Your task to perform on an android device: Show me recent news Image 0: 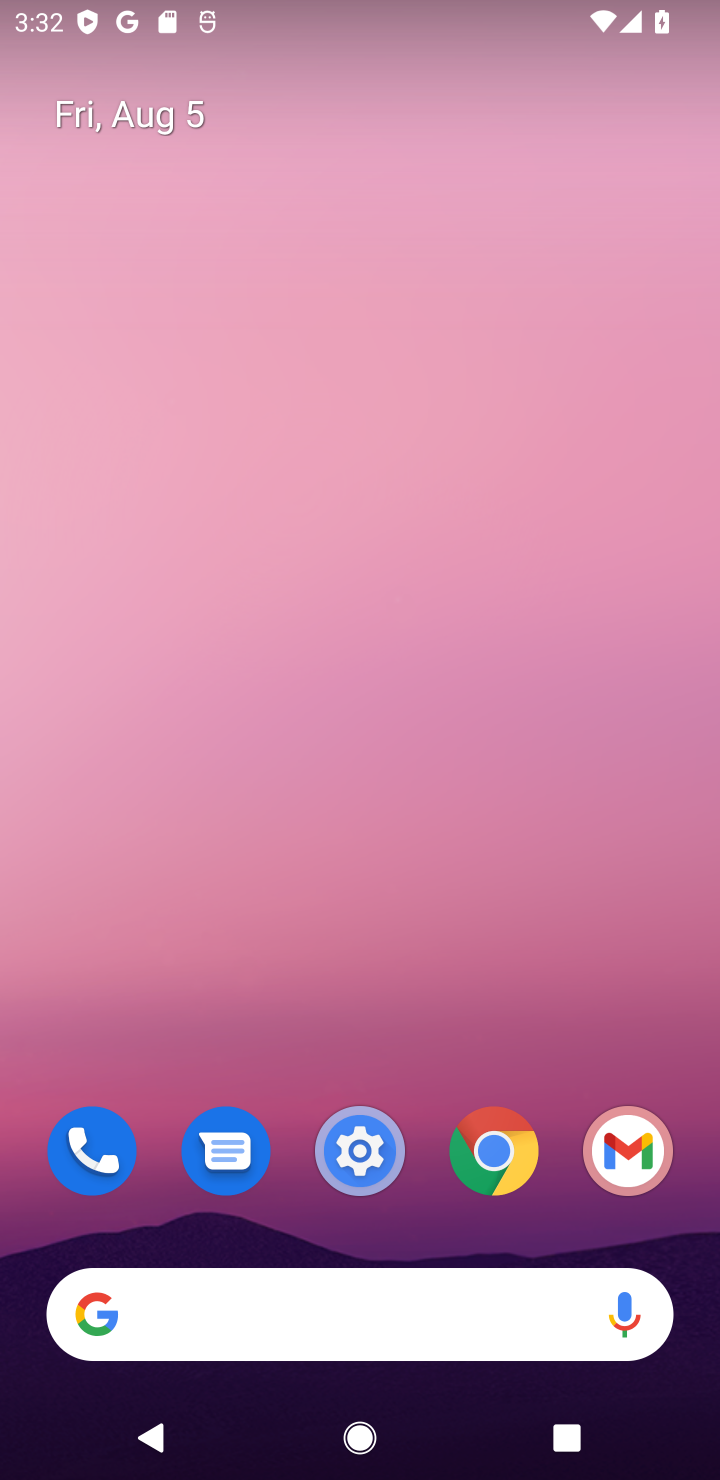
Step 0: click (404, 1317)
Your task to perform on an android device: Show me recent news Image 1: 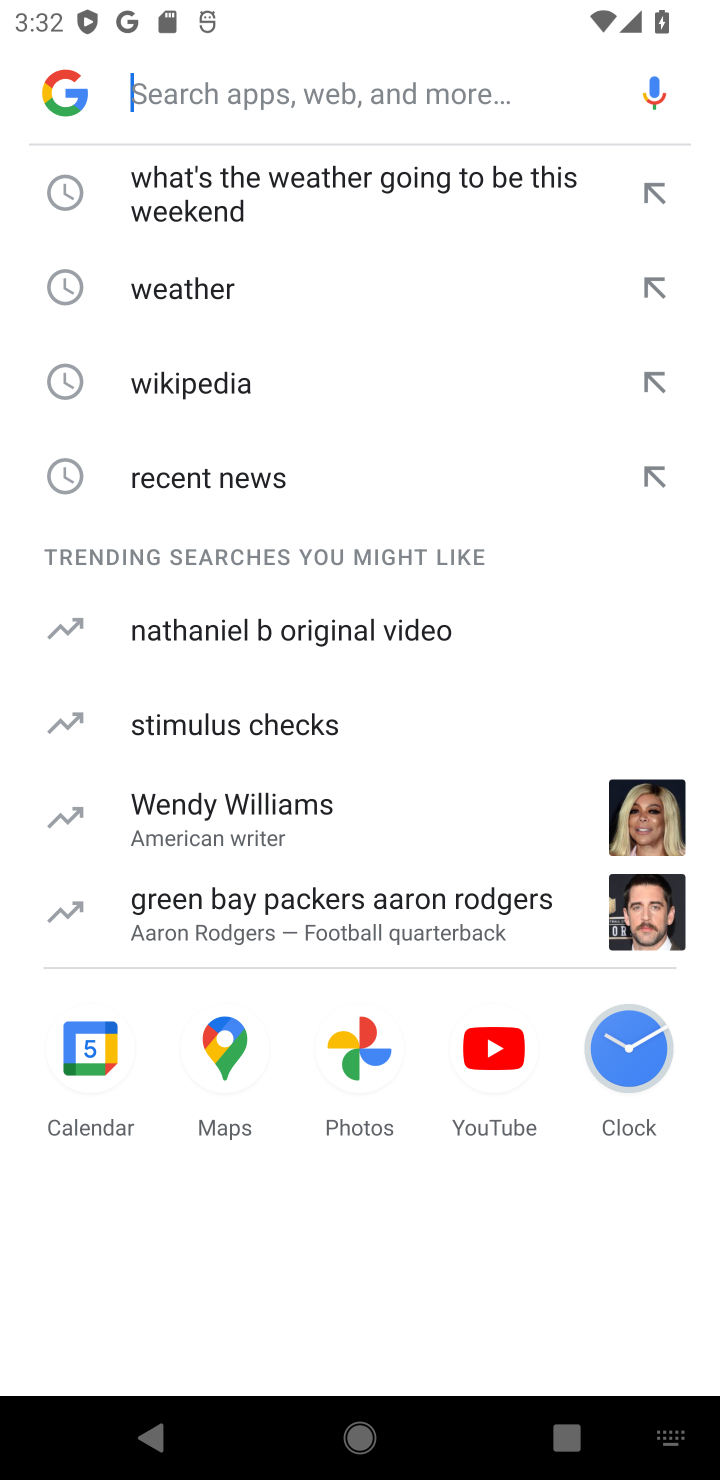
Step 1: type "recent news"
Your task to perform on an android device: Show me recent news Image 2: 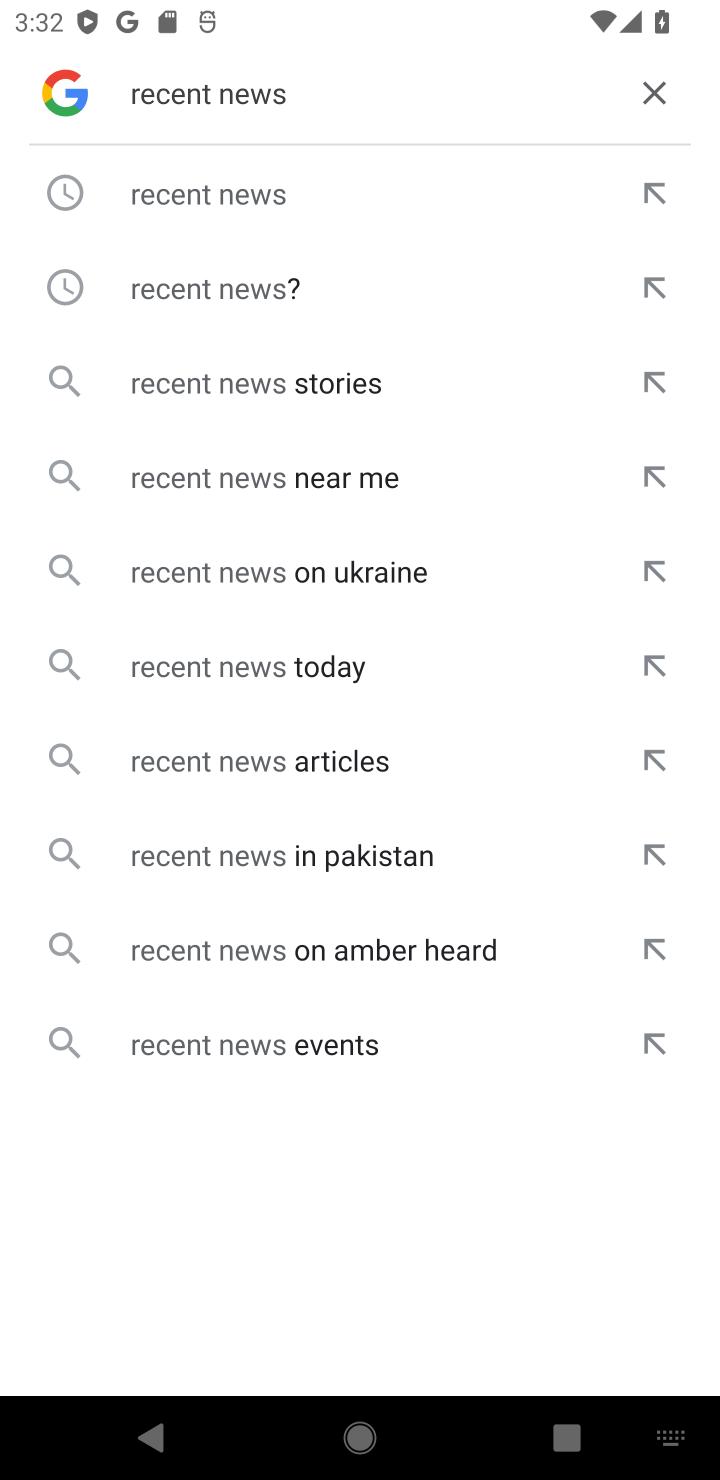
Step 2: click (321, 184)
Your task to perform on an android device: Show me recent news Image 3: 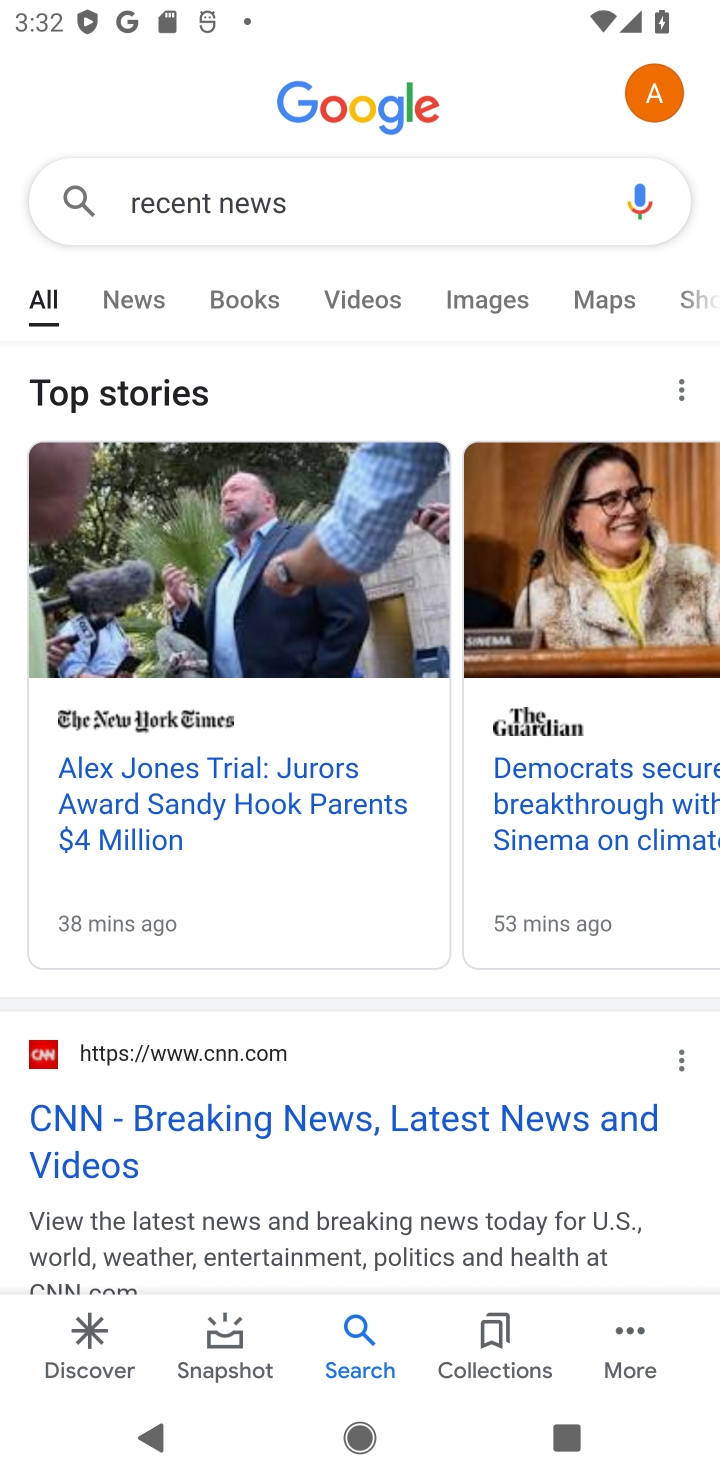
Step 3: click (149, 295)
Your task to perform on an android device: Show me recent news Image 4: 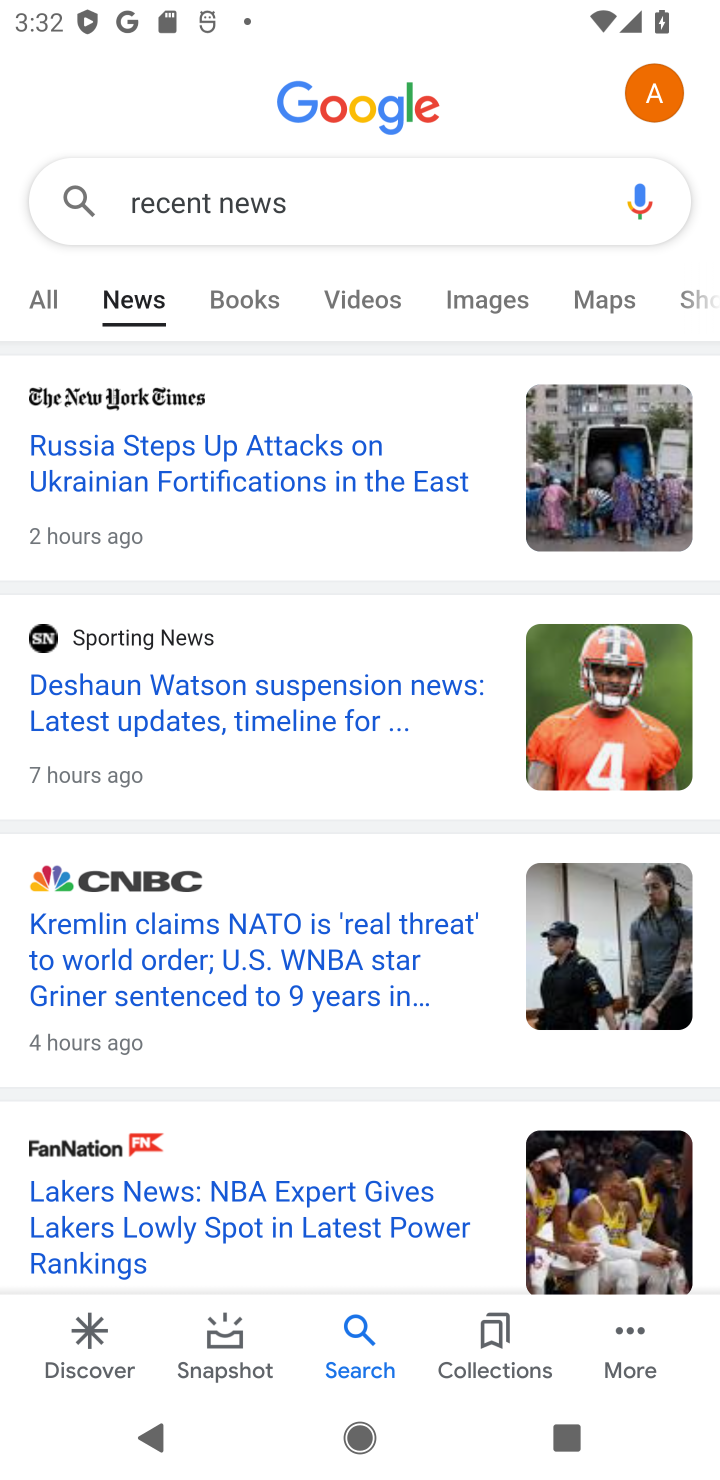
Step 4: task complete